Your task to perform on an android device: empty trash in google photos Image 0: 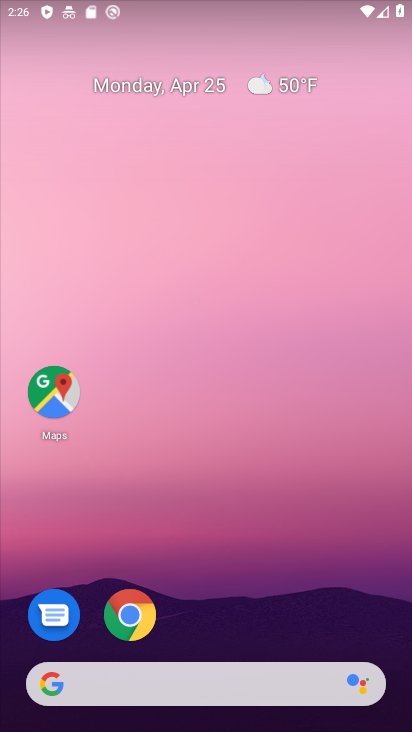
Step 0: drag from (222, 720) to (214, 220)
Your task to perform on an android device: empty trash in google photos Image 1: 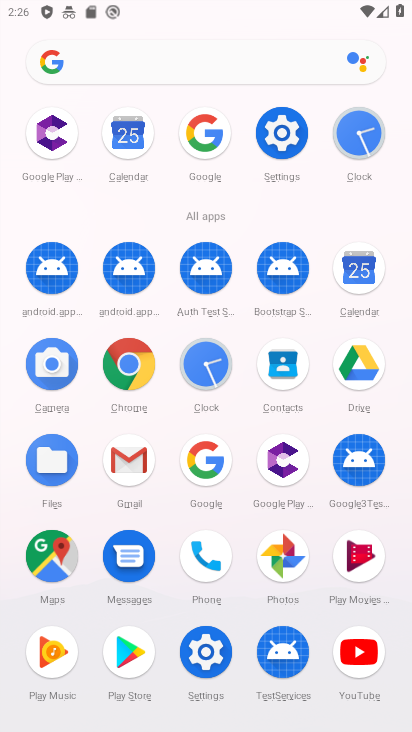
Step 1: click (289, 551)
Your task to perform on an android device: empty trash in google photos Image 2: 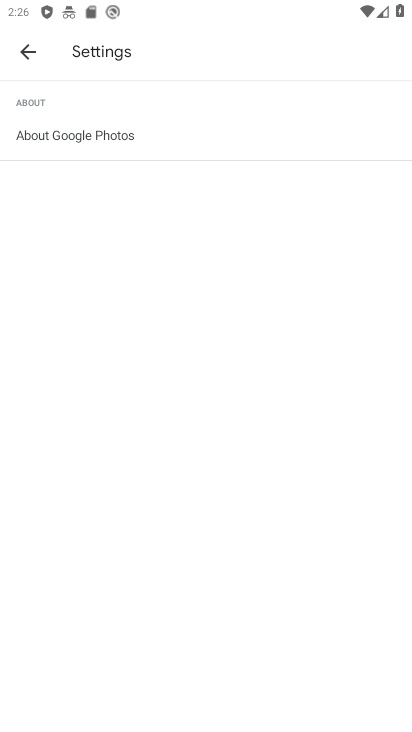
Step 2: click (29, 45)
Your task to perform on an android device: empty trash in google photos Image 3: 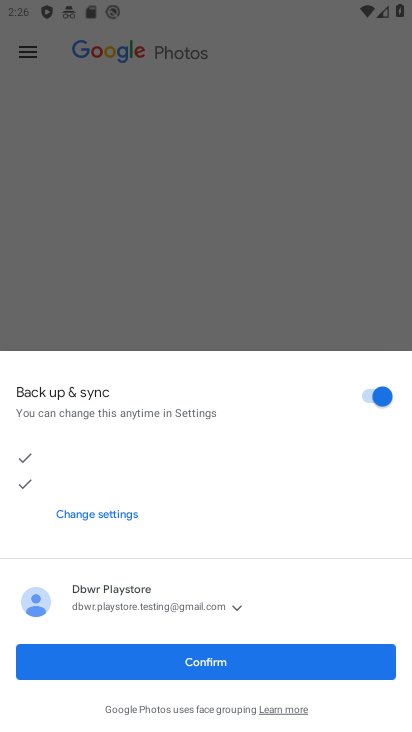
Step 3: click (26, 50)
Your task to perform on an android device: empty trash in google photos Image 4: 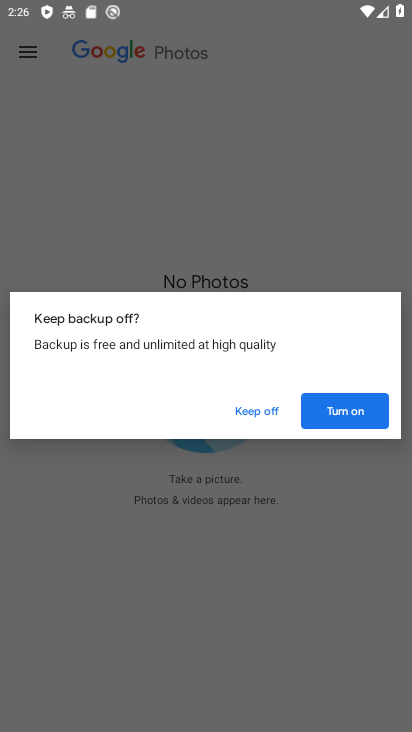
Step 4: click (267, 410)
Your task to perform on an android device: empty trash in google photos Image 5: 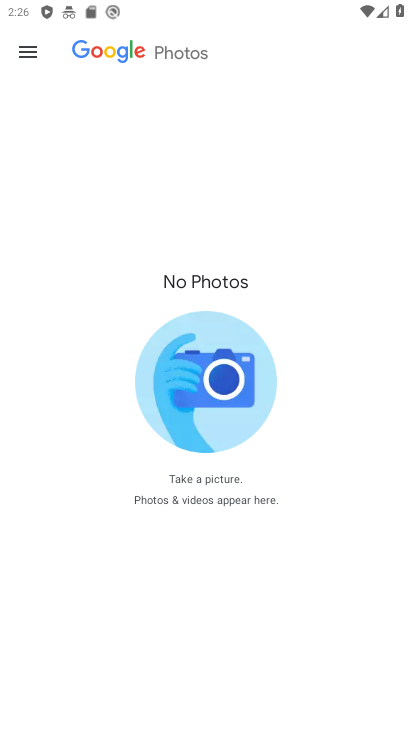
Step 5: click (25, 51)
Your task to perform on an android device: empty trash in google photos Image 6: 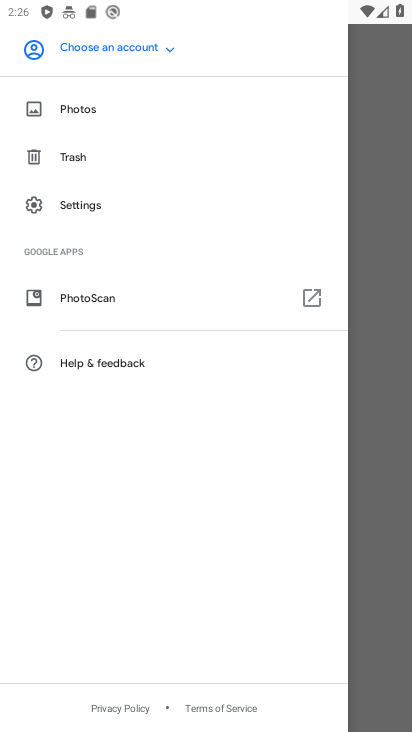
Step 6: click (69, 154)
Your task to perform on an android device: empty trash in google photos Image 7: 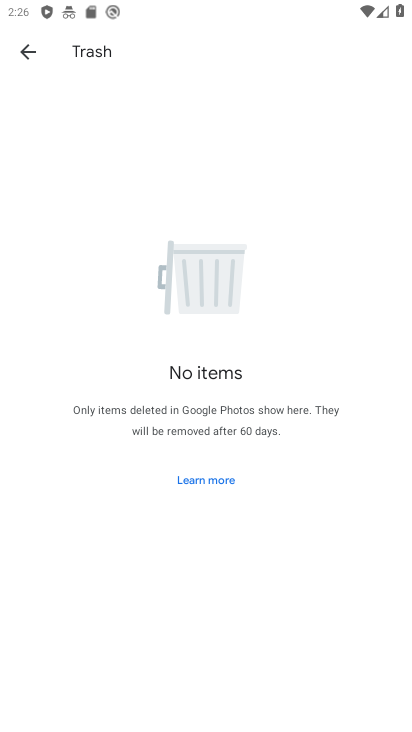
Step 7: task complete